Your task to perform on an android device: Go to accessibility settings Image 0: 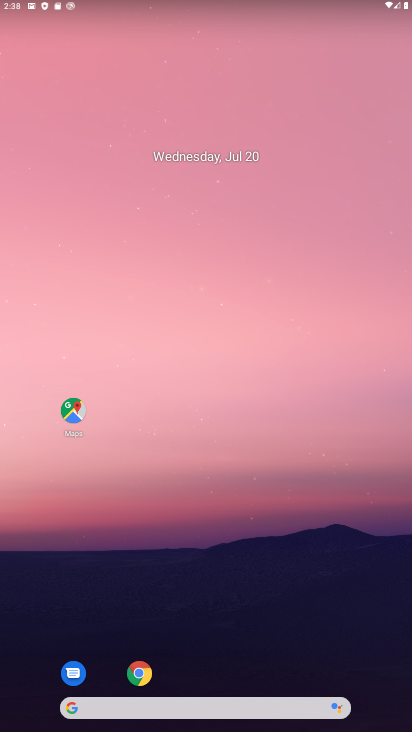
Step 0: drag from (191, 662) to (304, 141)
Your task to perform on an android device: Go to accessibility settings Image 1: 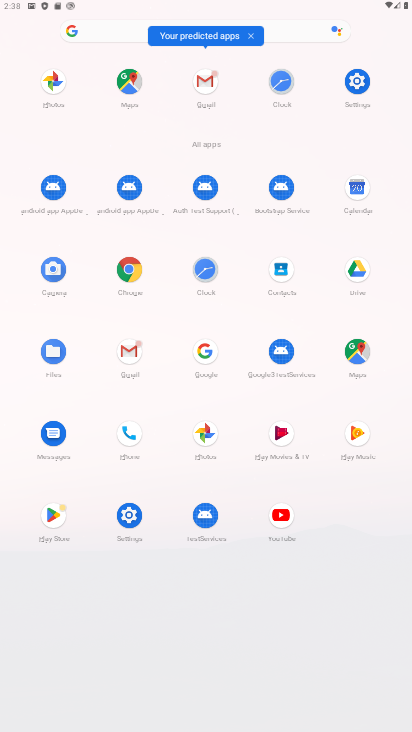
Step 1: click (124, 519)
Your task to perform on an android device: Go to accessibility settings Image 2: 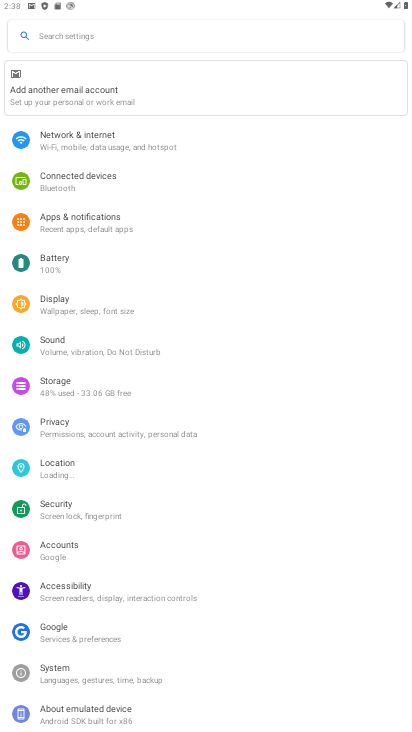
Step 2: click (113, 591)
Your task to perform on an android device: Go to accessibility settings Image 3: 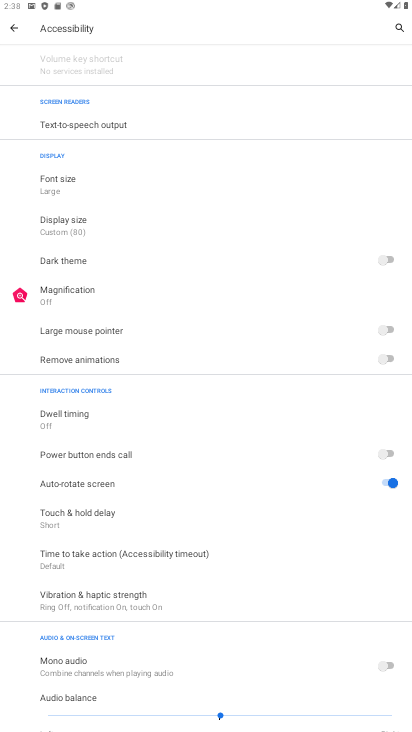
Step 3: task complete